Your task to perform on an android device: Open location settings Image 0: 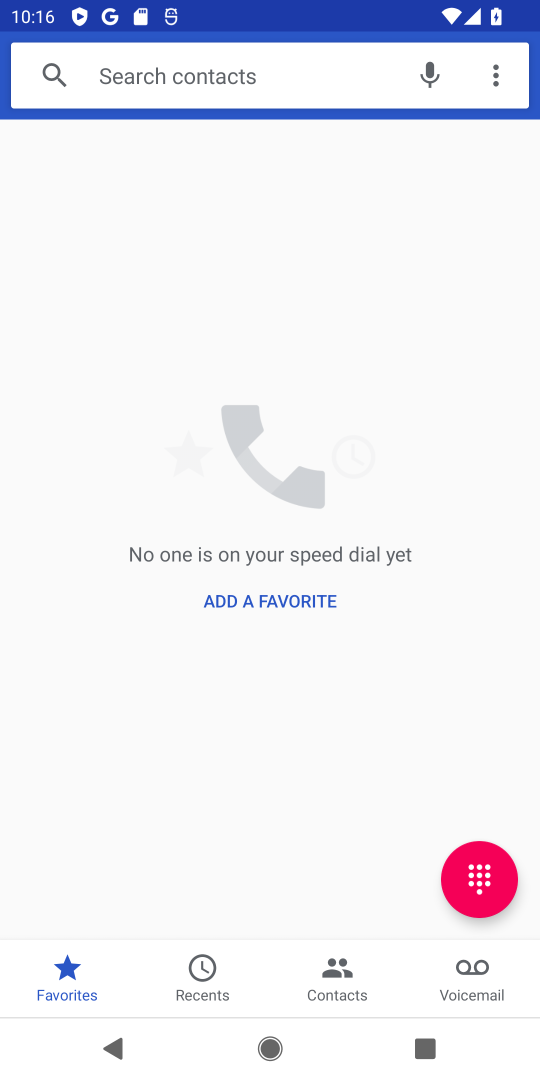
Step 0: press home button
Your task to perform on an android device: Open location settings Image 1: 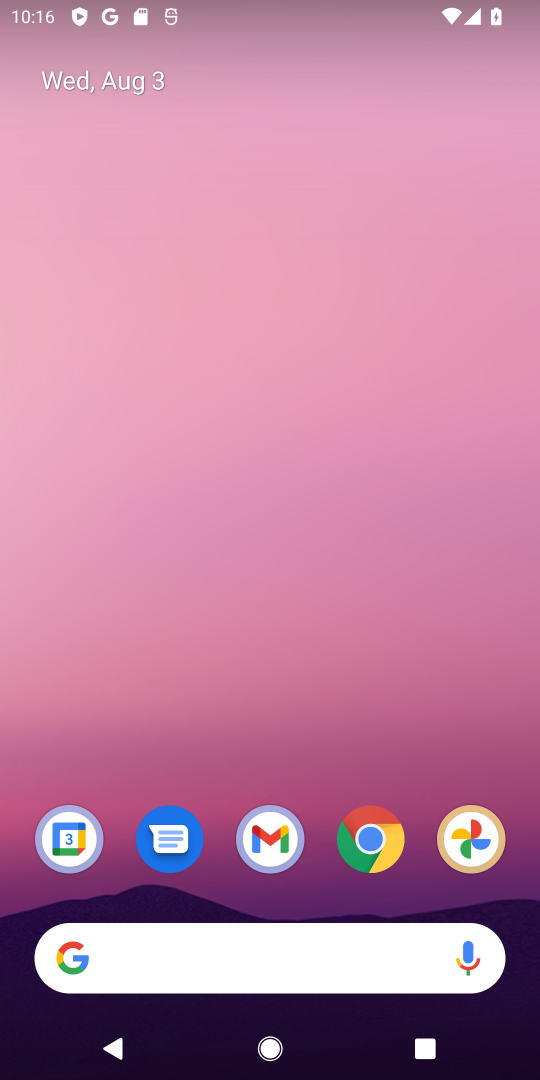
Step 1: drag from (245, 841) to (252, 83)
Your task to perform on an android device: Open location settings Image 2: 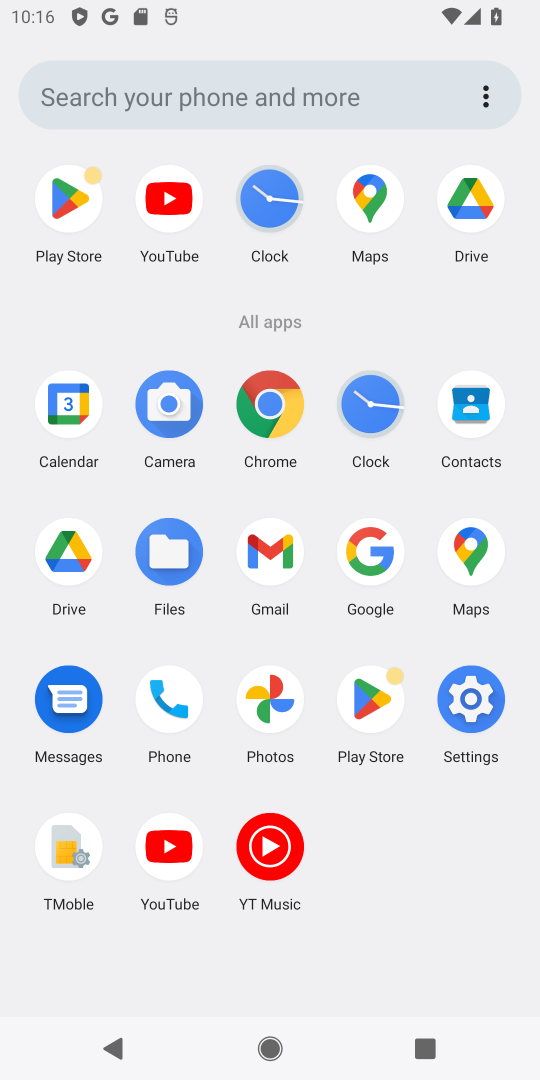
Step 2: click (464, 734)
Your task to perform on an android device: Open location settings Image 3: 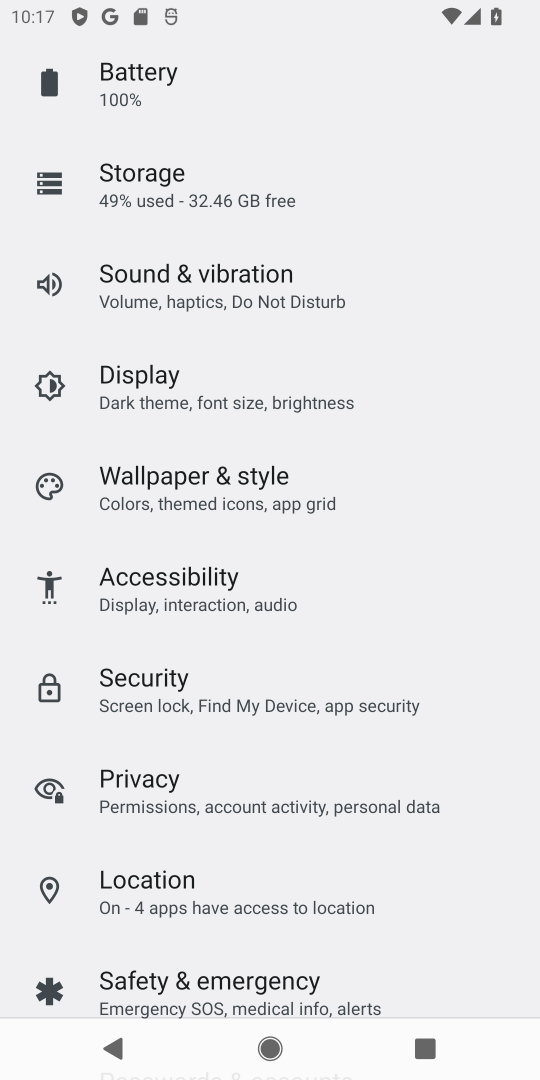
Step 3: click (185, 875)
Your task to perform on an android device: Open location settings Image 4: 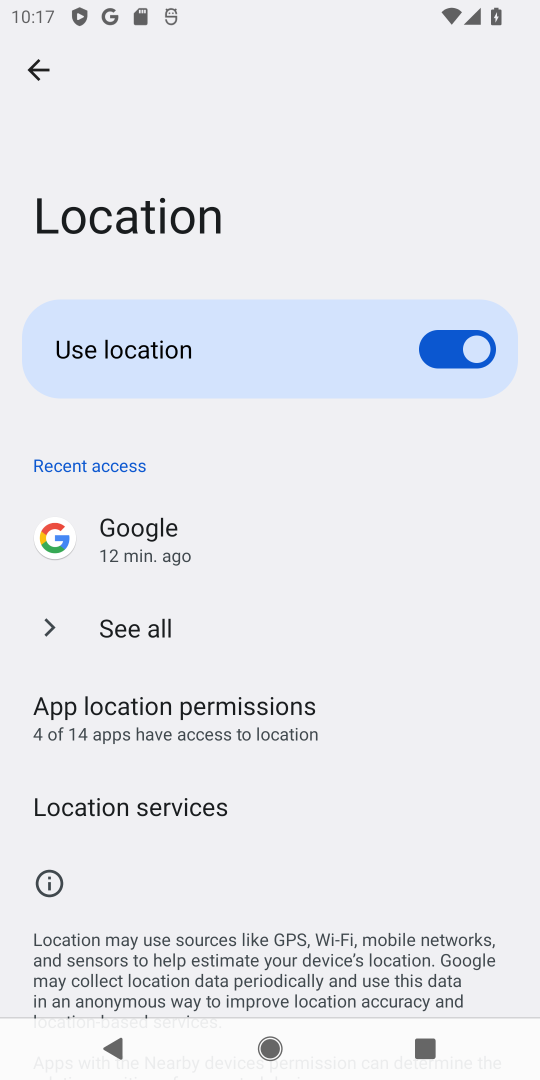
Step 4: task complete